Your task to perform on an android device: Go to CNN.com Image 0: 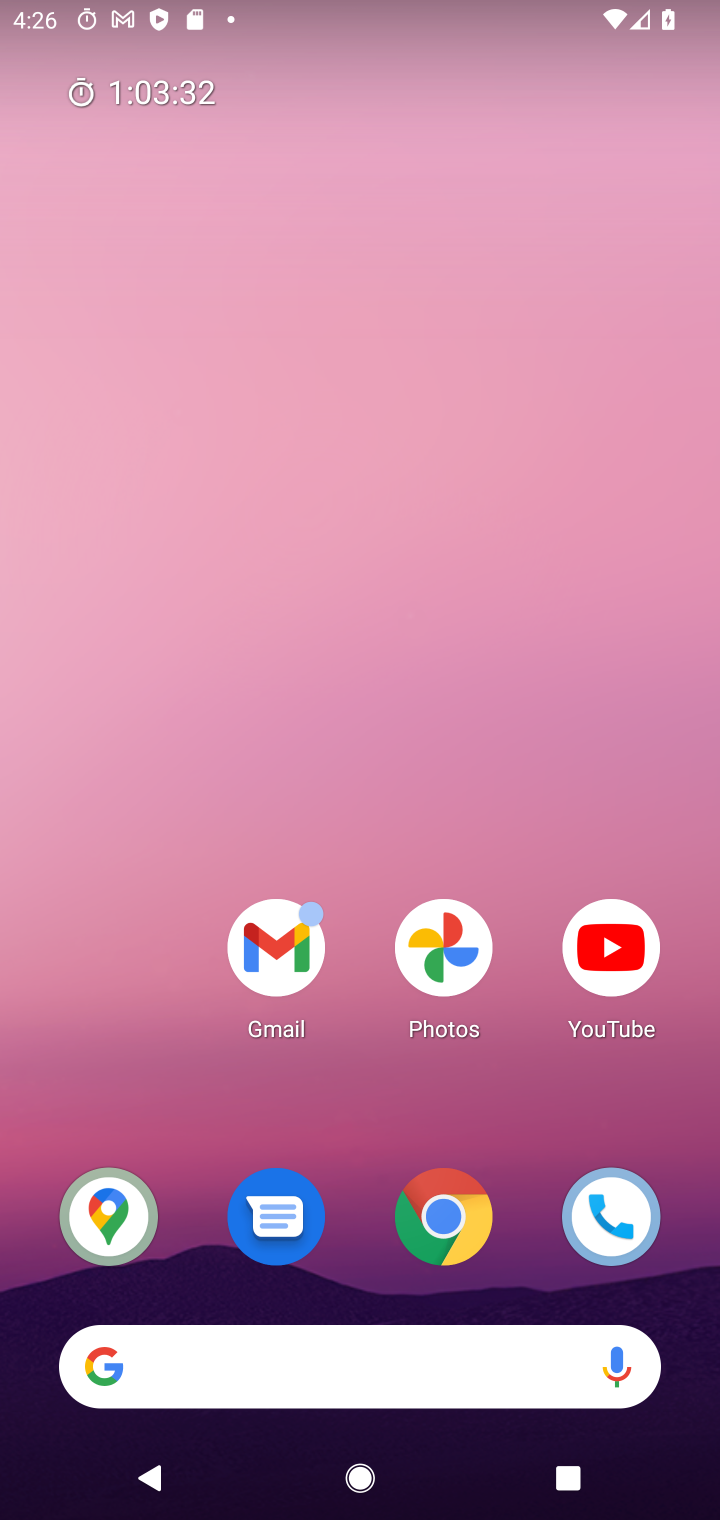
Step 0: click (427, 1218)
Your task to perform on an android device: Go to CNN.com Image 1: 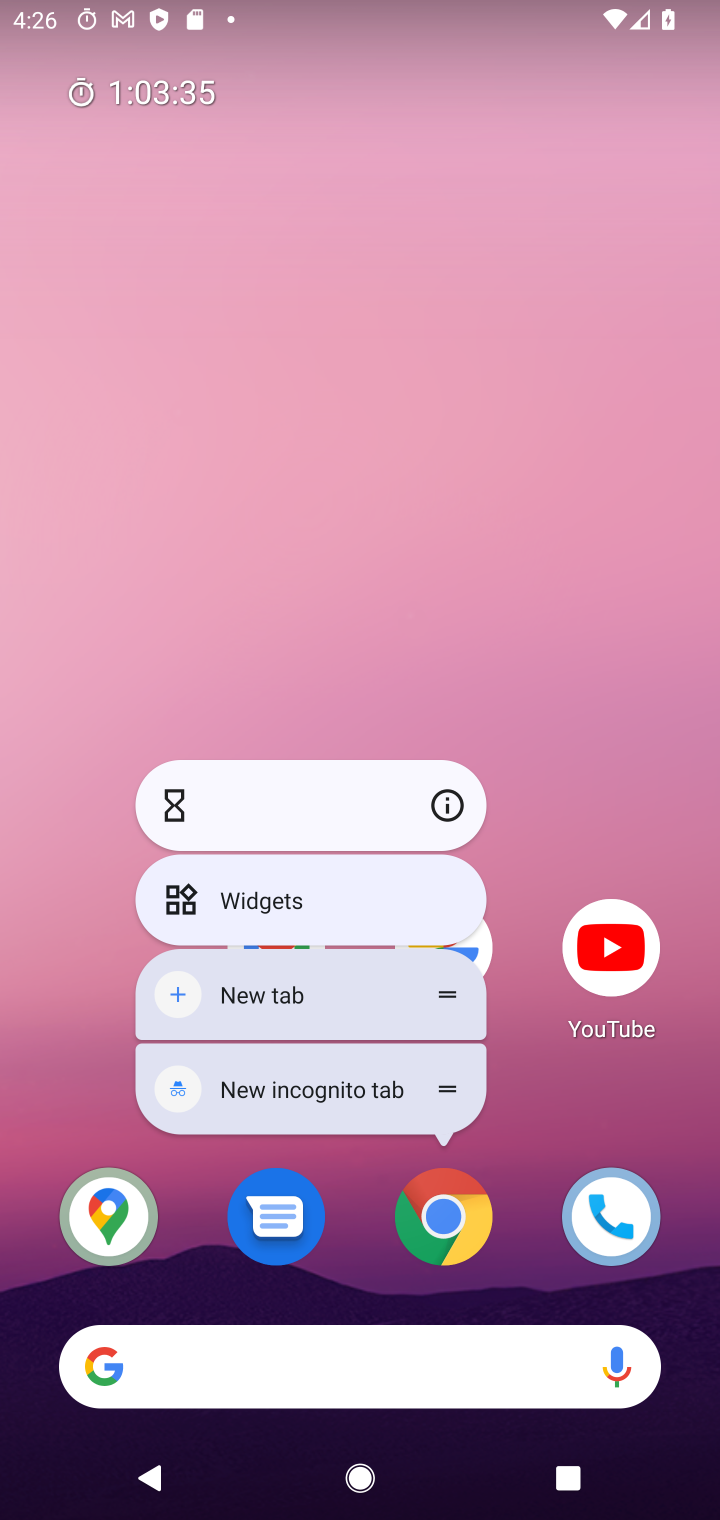
Step 1: click (458, 1216)
Your task to perform on an android device: Go to CNN.com Image 2: 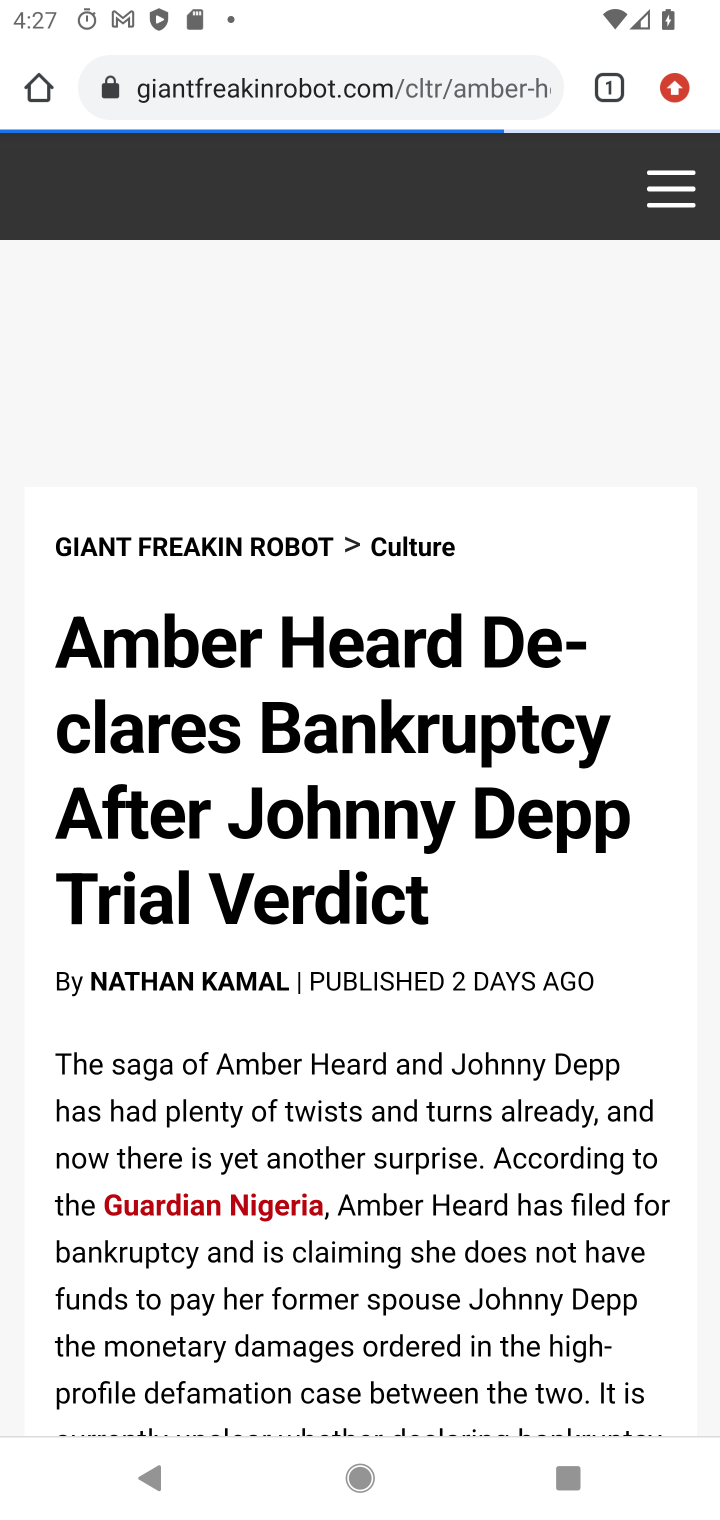
Step 2: click (320, 64)
Your task to perform on an android device: Go to CNN.com Image 3: 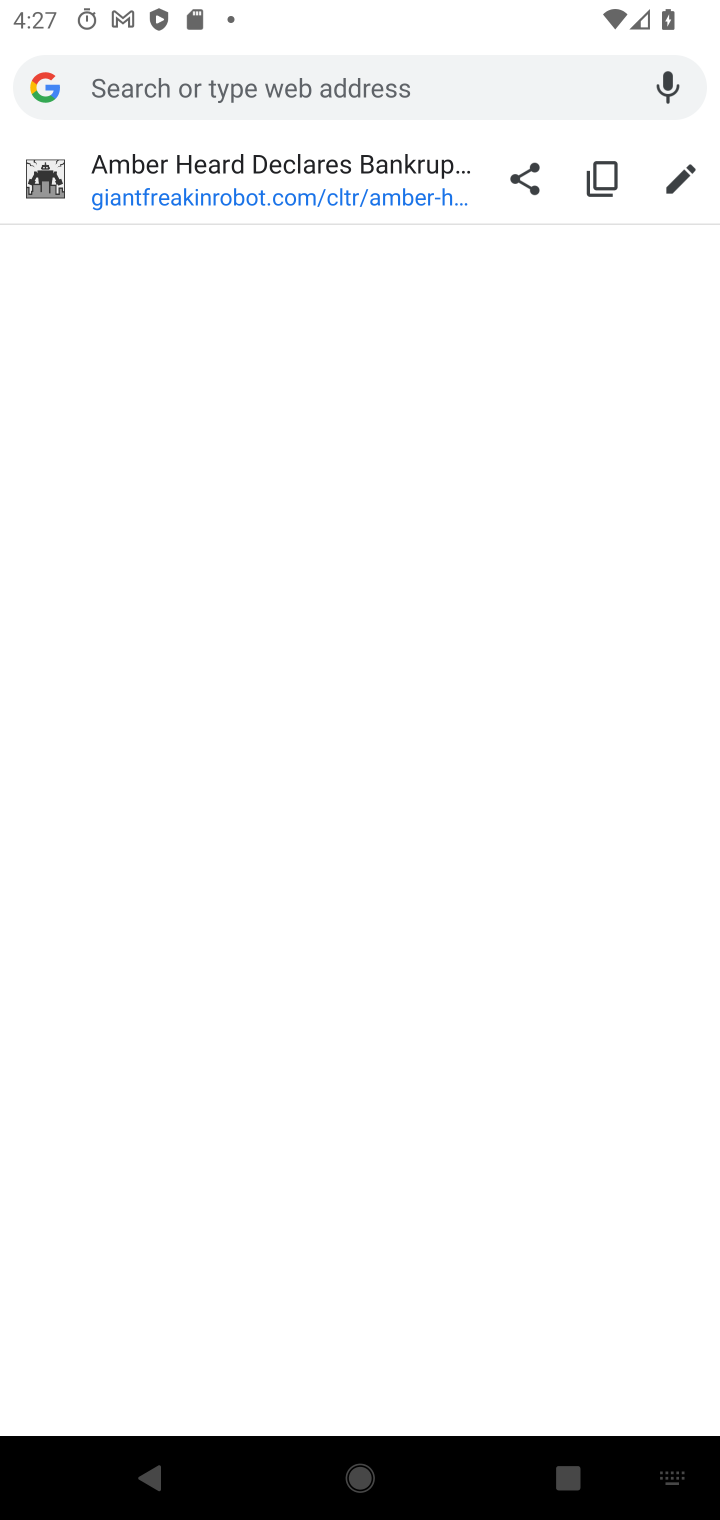
Step 3: type "CNN.com"
Your task to perform on an android device: Go to CNN.com Image 4: 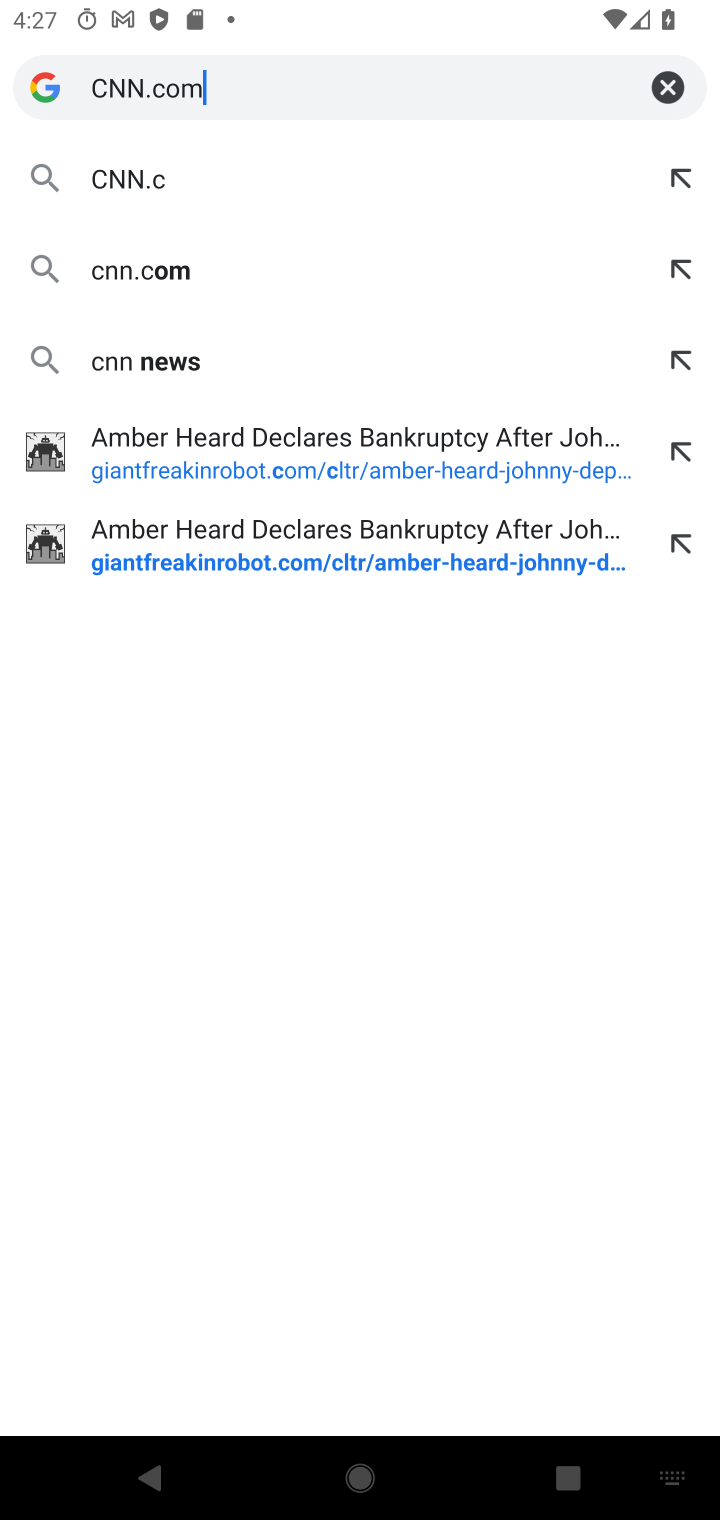
Step 4: type ""
Your task to perform on an android device: Go to CNN.com Image 5: 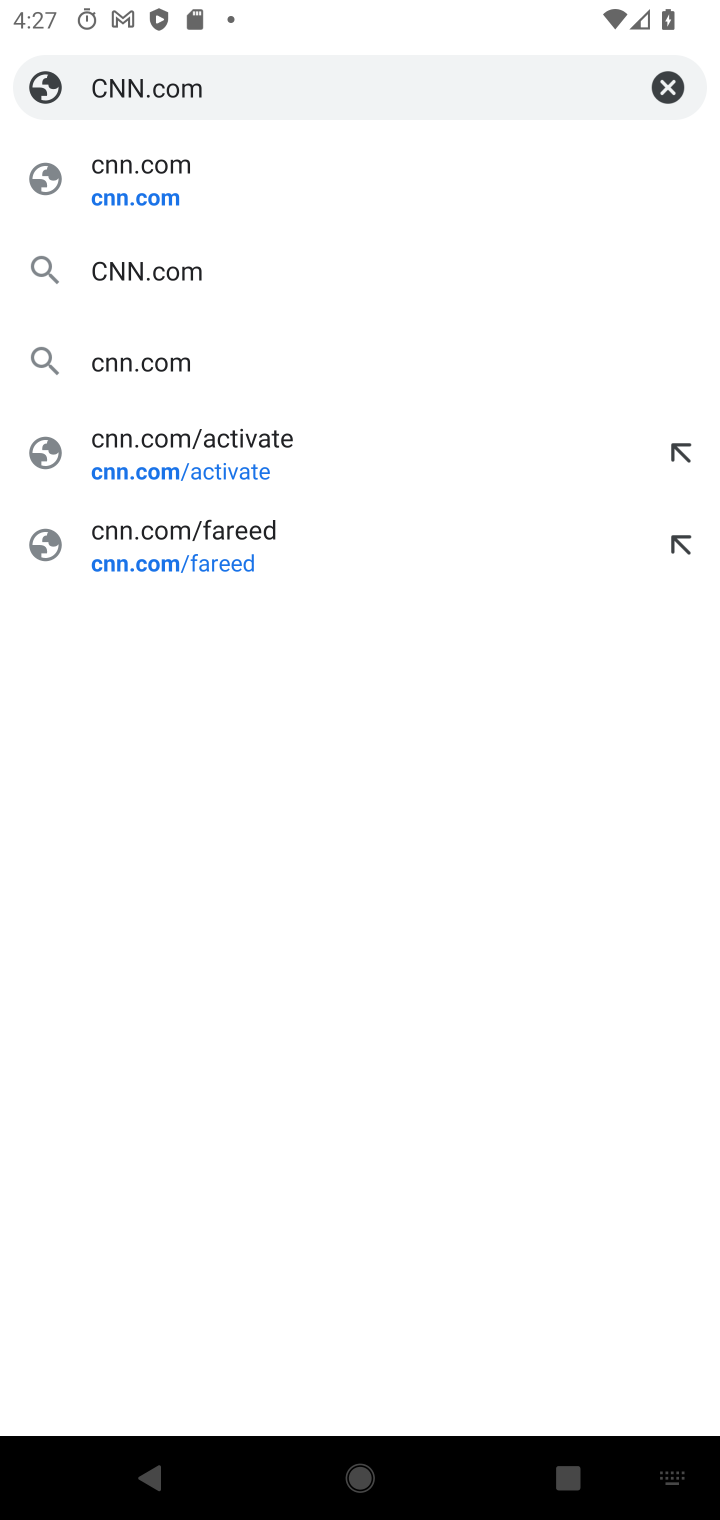
Step 5: click (266, 139)
Your task to perform on an android device: Go to CNN.com Image 6: 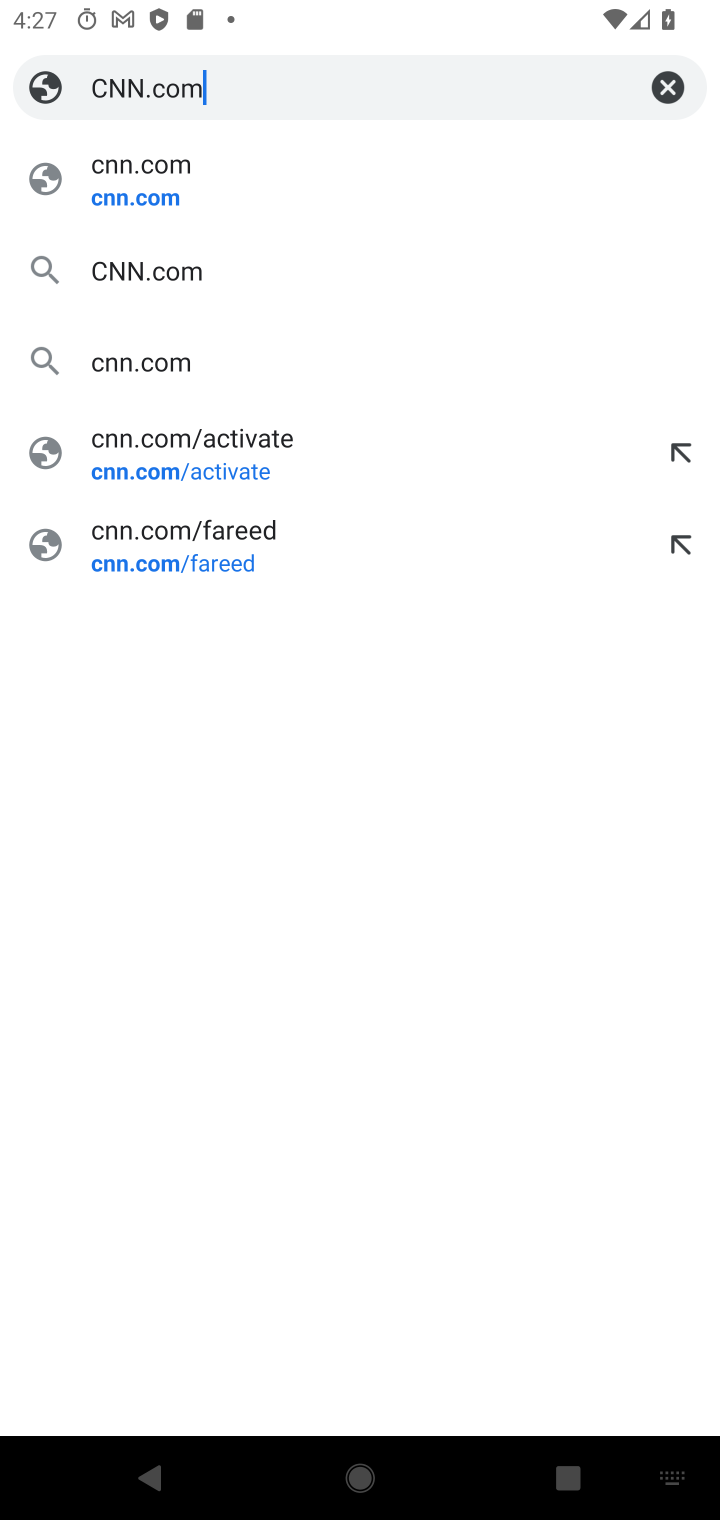
Step 6: click (231, 166)
Your task to perform on an android device: Go to CNN.com Image 7: 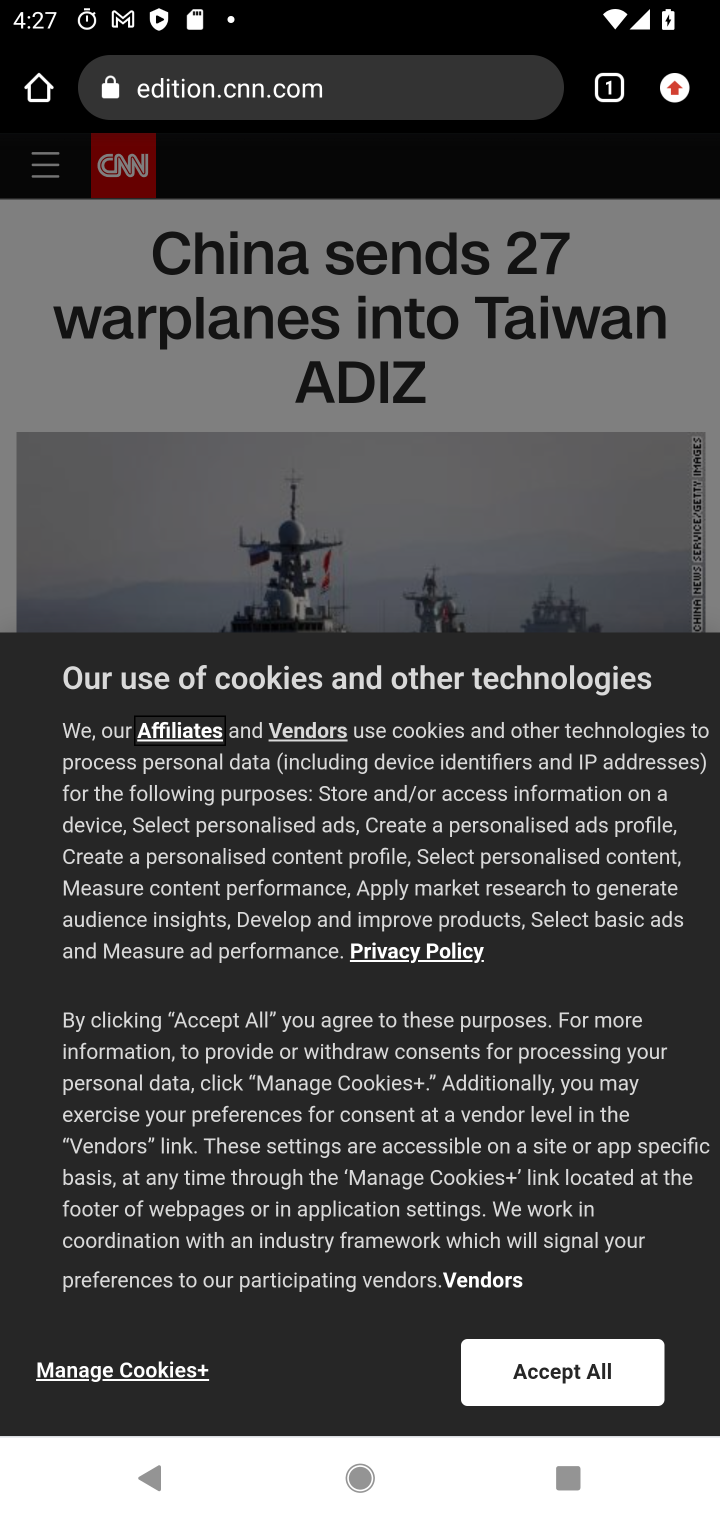
Step 7: task complete